Your task to perform on an android device: Go to ESPN.com Image 0: 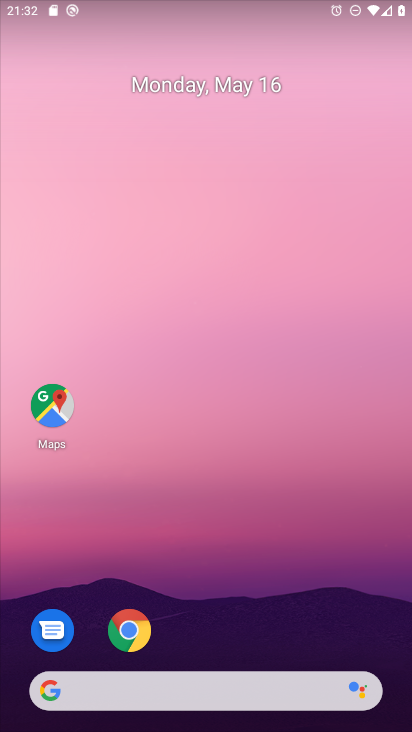
Step 0: click (127, 627)
Your task to perform on an android device: Go to ESPN.com Image 1: 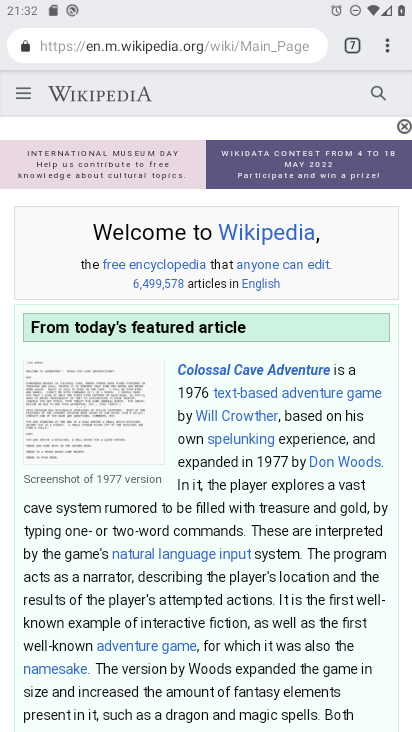
Step 1: click (349, 42)
Your task to perform on an android device: Go to ESPN.com Image 2: 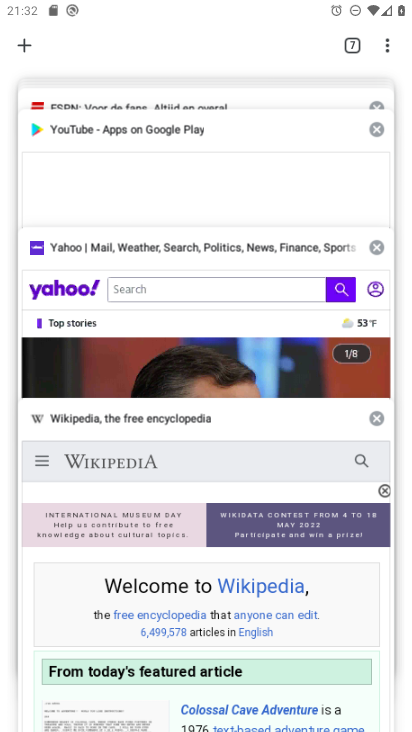
Step 2: drag from (185, 238) to (193, 526)
Your task to perform on an android device: Go to ESPN.com Image 3: 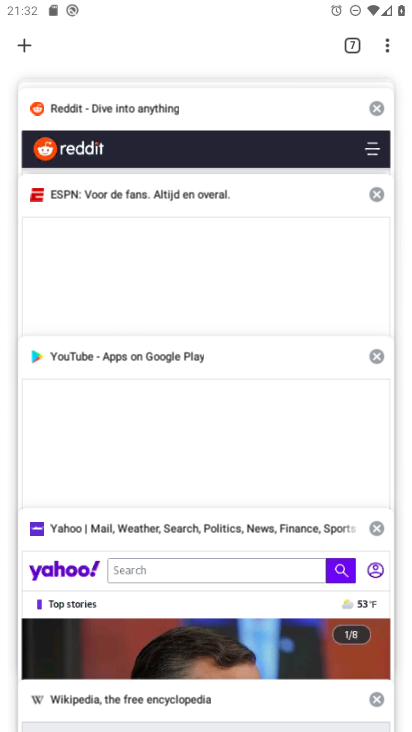
Step 3: click (131, 224)
Your task to perform on an android device: Go to ESPN.com Image 4: 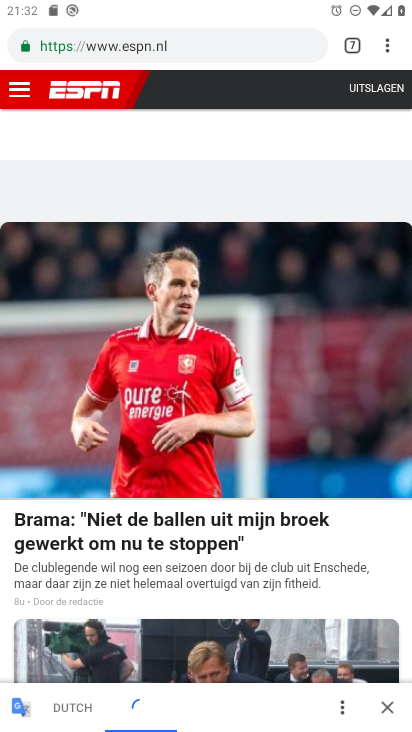
Step 4: task complete